Your task to perform on an android device: Open Google Chrome and open the bookmarks view Image 0: 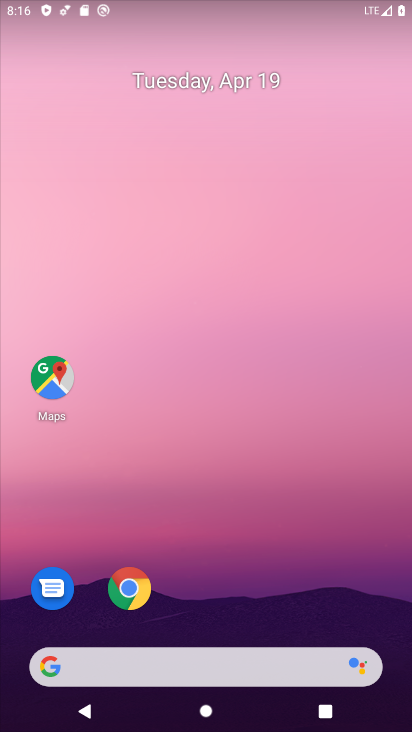
Step 0: drag from (214, 589) to (239, 0)
Your task to perform on an android device: Open Google Chrome and open the bookmarks view Image 1: 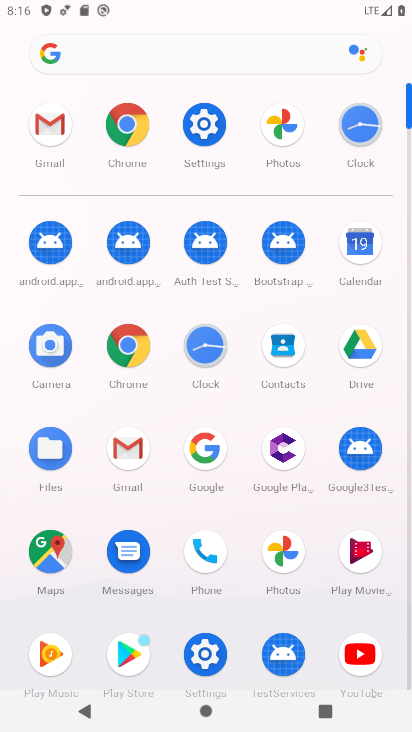
Step 1: click (129, 347)
Your task to perform on an android device: Open Google Chrome and open the bookmarks view Image 2: 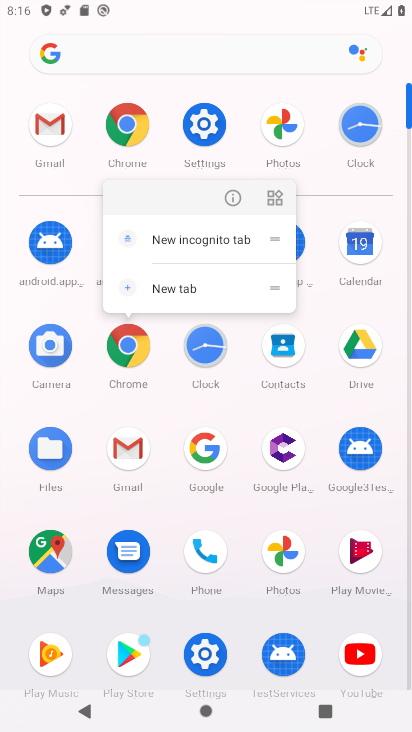
Step 2: click (129, 347)
Your task to perform on an android device: Open Google Chrome and open the bookmarks view Image 3: 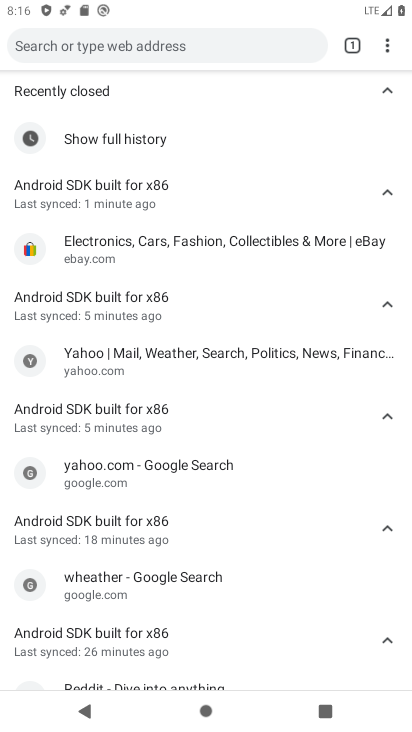
Step 3: click (384, 40)
Your task to perform on an android device: Open Google Chrome and open the bookmarks view Image 4: 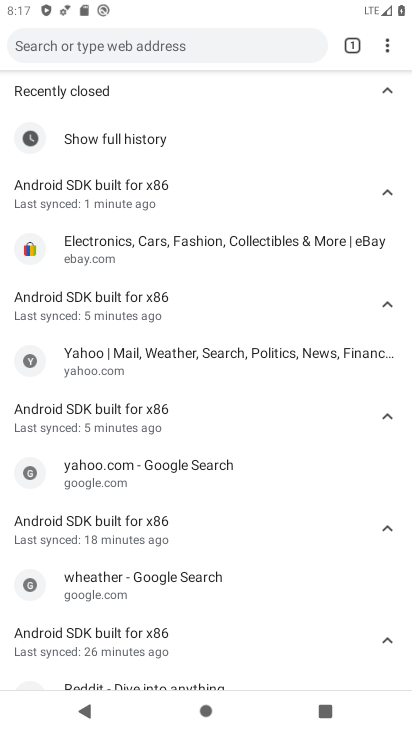
Step 4: click (381, 43)
Your task to perform on an android device: Open Google Chrome and open the bookmarks view Image 5: 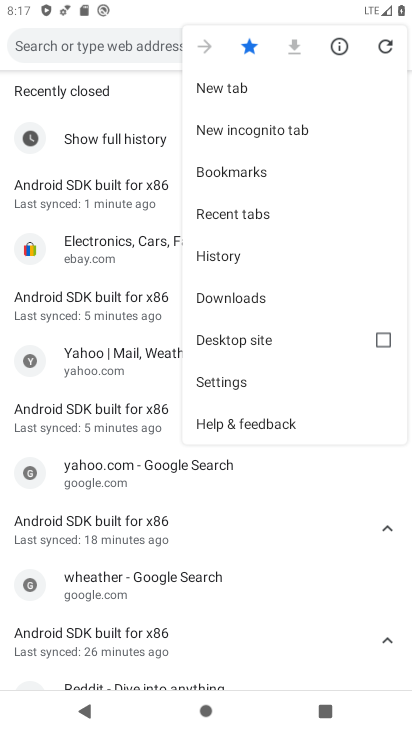
Step 5: click (270, 171)
Your task to perform on an android device: Open Google Chrome and open the bookmarks view Image 6: 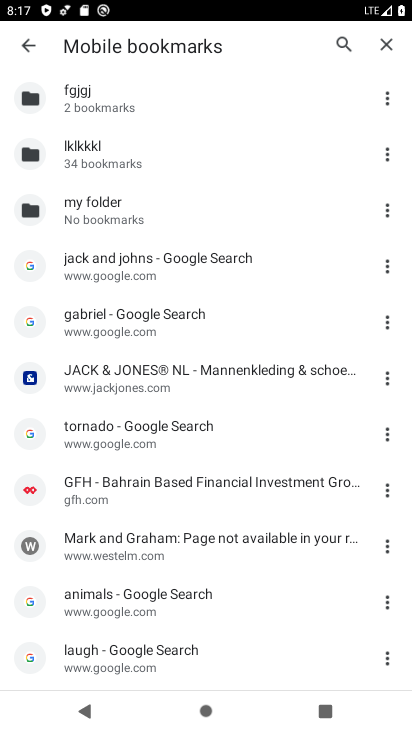
Step 6: click (170, 441)
Your task to perform on an android device: Open Google Chrome and open the bookmarks view Image 7: 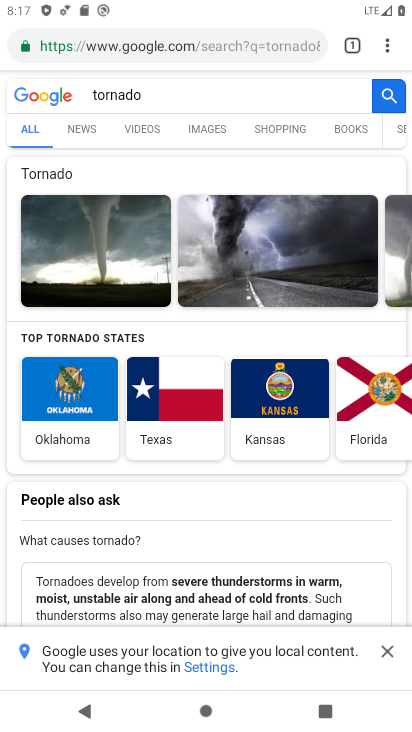
Step 7: task complete